Your task to perform on an android device: turn off smart reply in the gmail app Image 0: 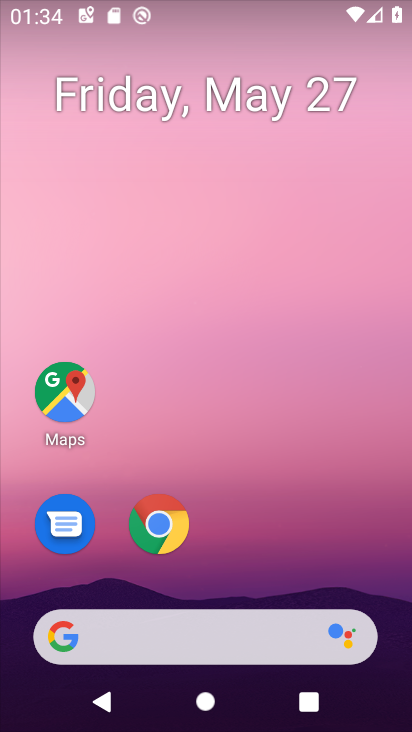
Step 0: drag from (225, 535) to (249, 62)
Your task to perform on an android device: turn off smart reply in the gmail app Image 1: 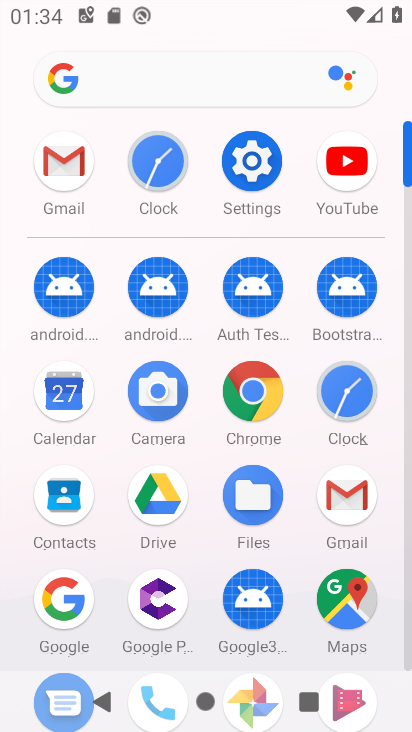
Step 1: click (77, 165)
Your task to perform on an android device: turn off smart reply in the gmail app Image 2: 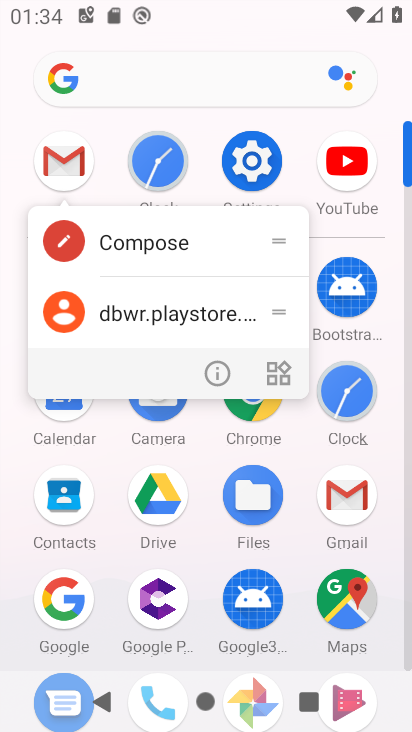
Step 2: click (64, 149)
Your task to perform on an android device: turn off smart reply in the gmail app Image 3: 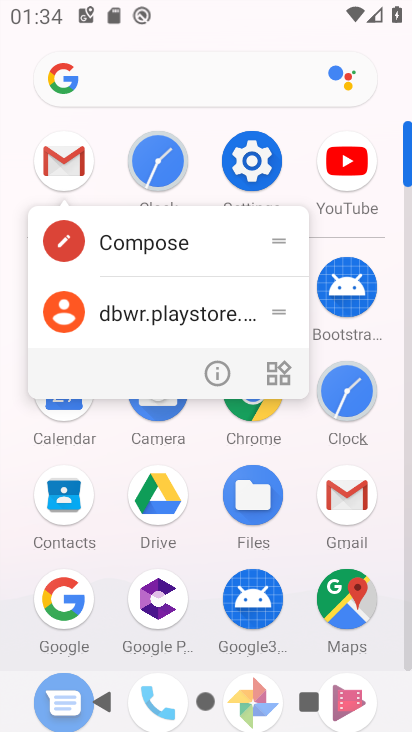
Step 3: click (64, 147)
Your task to perform on an android device: turn off smart reply in the gmail app Image 4: 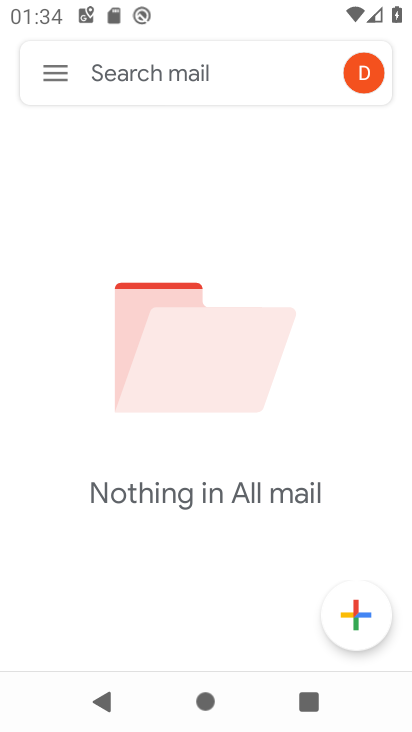
Step 4: click (56, 67)
Your task to perform on an android device: turn off smart reply in the gmail app Image 5: 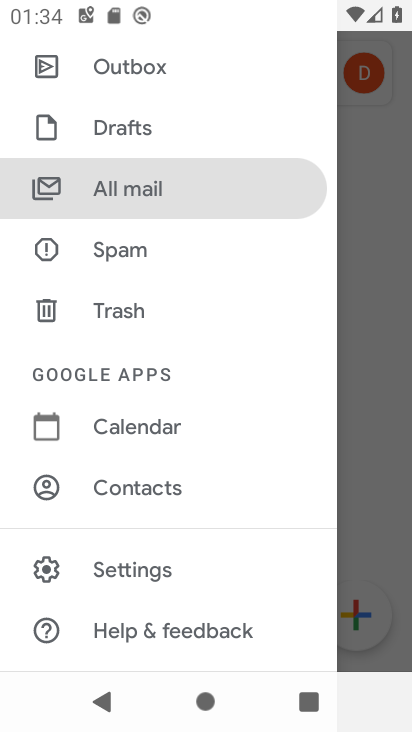
Step 5: click (156, 565)
Your task to perform on an android device: turn off smart reply in the gmail app Image 6: 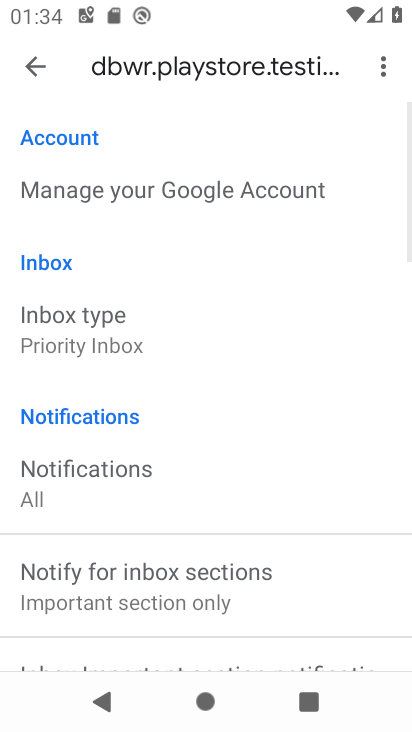
Step 6: drag from (208, 487) to (223, 188)
Your task to perform on an android device: turn off smart reply in the gmail app Image 7: 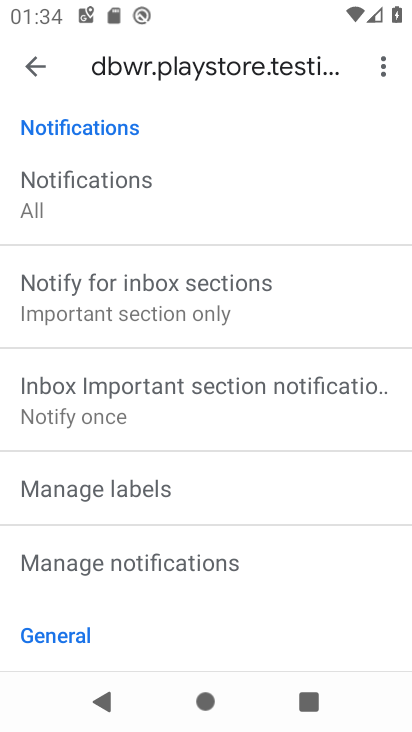
Step 7: drag from (256, 474) to (250, 136)
Your task to perform on an android device: turn off smart reply in the gmail app Image 8: 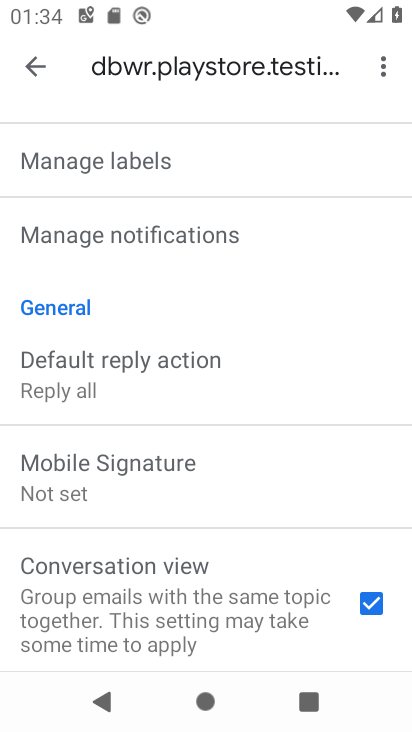
Step 8: drag from (255, 469) to (294, 70)
Your task to perform on an android device: turn off smart reply in the gmail app Image 9: 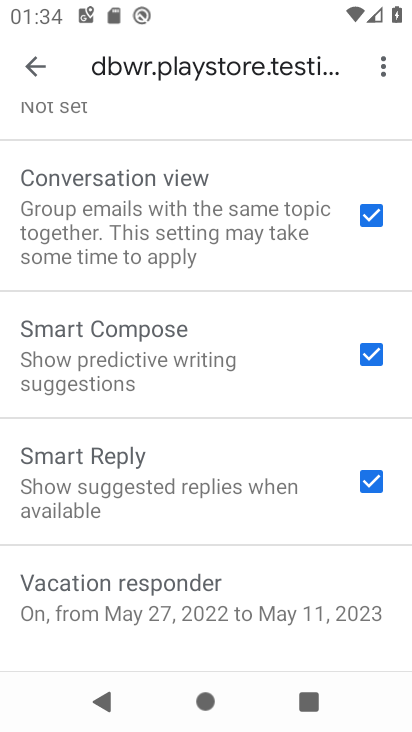
Step 9: click (369, 482)
Your task to perform on an android device: turn off smart reply in the gmail app Image 10: 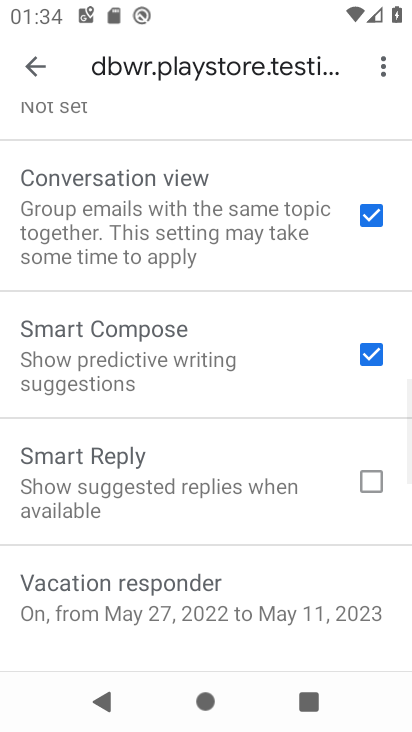
Step 10: task complete